Your task to perform on an android device: Open Google Chrome Image 0: 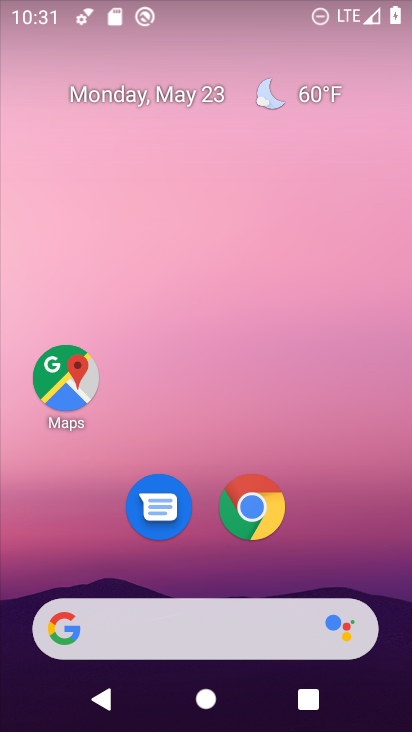
Step 0: click (252, 506)
Your task to perform on an android device: Open Google Chrome Image 1: 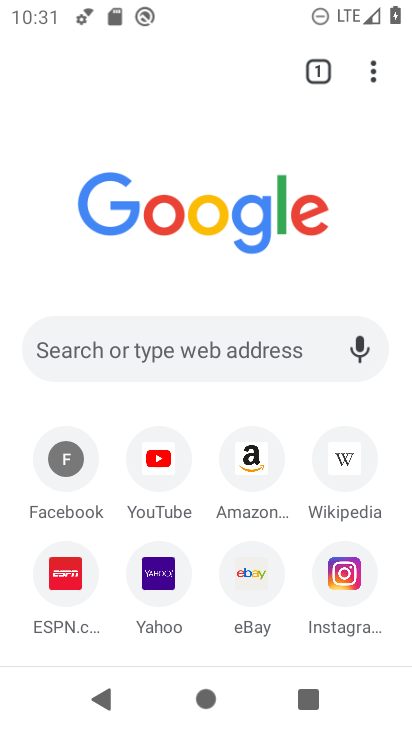
Step 1: task complete